Your task to perform on an android device: open chrome privacy settings Image 0: 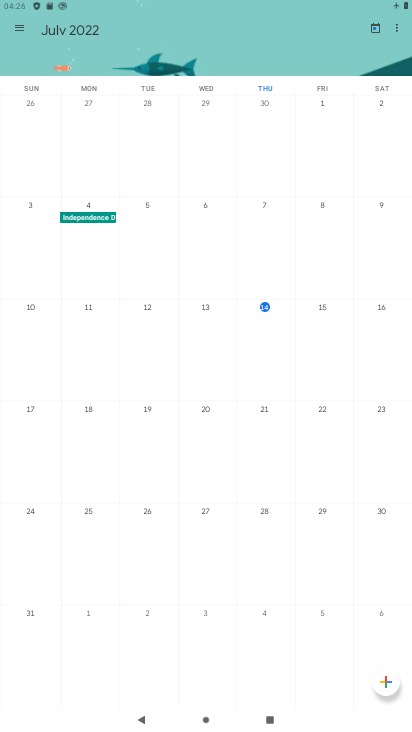
Step 0: press home button
Your task to perform on an android device: open chrome privacy settings Image 1: 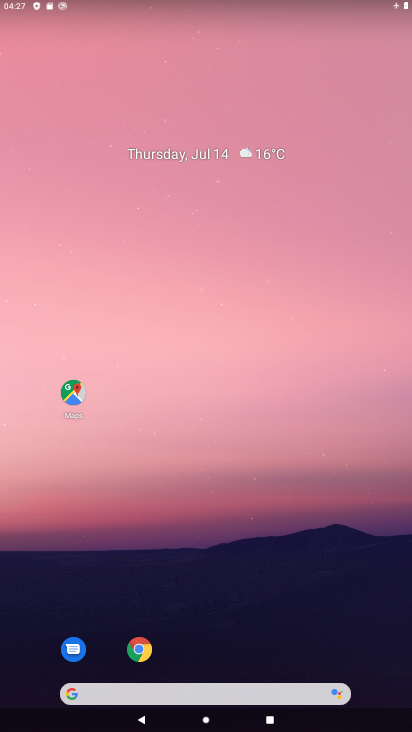
Step 1: drag from (213, 596) to (229, 200)
Your task to perform on an android device: open chrome privacy settings Image 2: 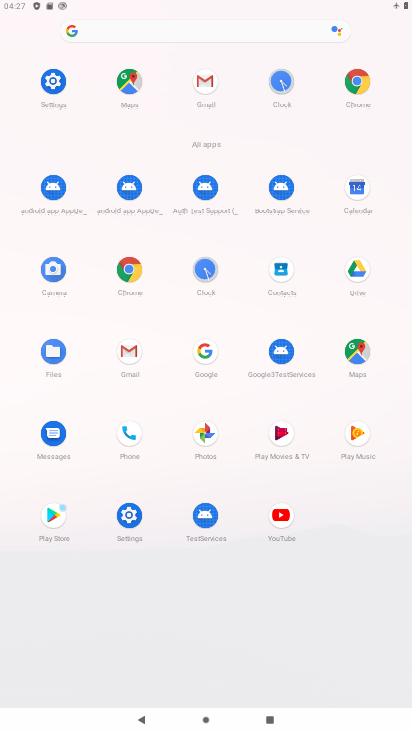
Step 2: click (43, 81)
Your task to perform on an android device: open chrome privacy settings Image 3: 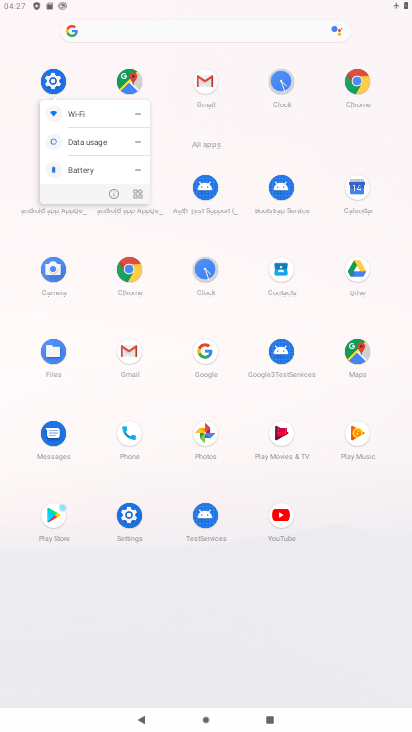
Step 3: click (369, 89)
Your task to perform on an android device: open chrome privacy settings Image 4: 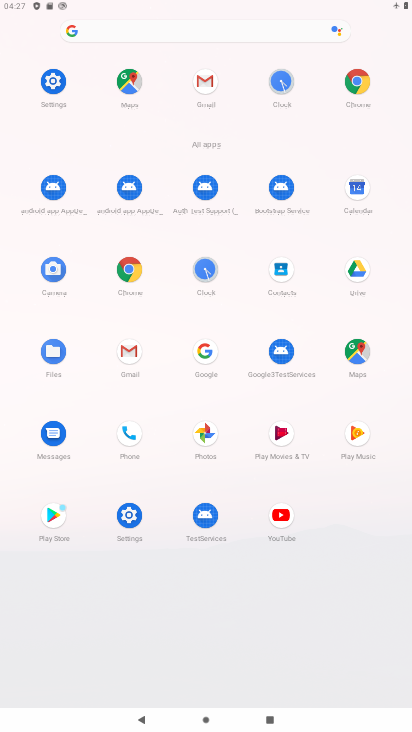
Step 4: click (369, 89)
Your task to perform on an android device: open chrome privacy settings Image 5: 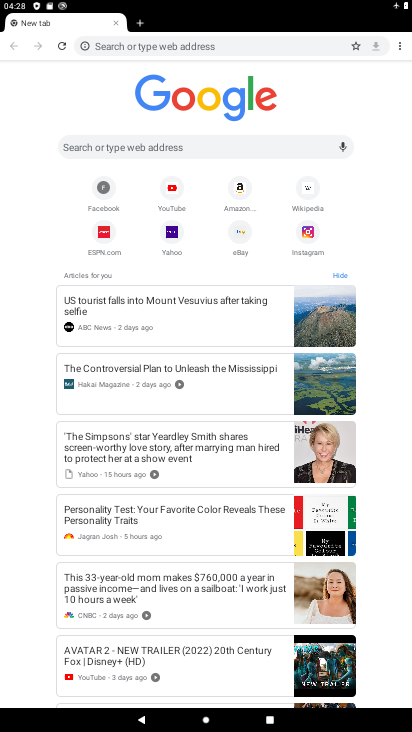
Step 5: drag from (403, 37) to (303, 219)
Your task to perform on an android device: open chrome privacy settings Image 6: 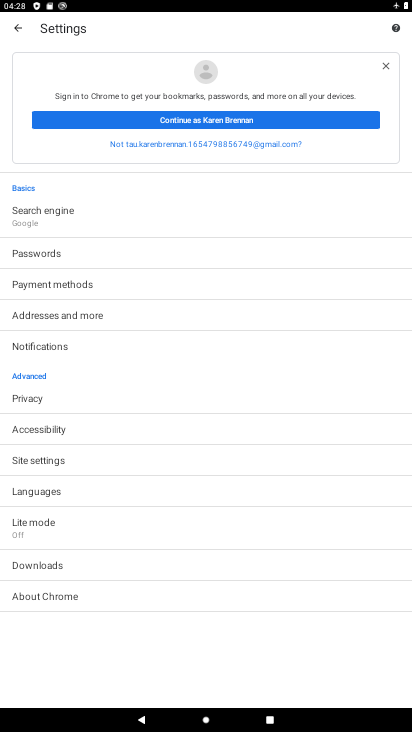
Step 6: click (38, 394)
Your task to perform on an android device: open chrome privacy settings Image 7: 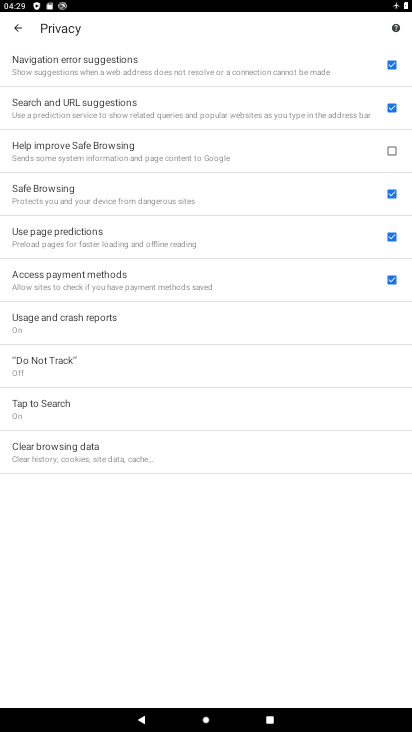
Step 7: task complete